Your task to perform on an android device: View the shopping cart on amazon. Add razer blade to the cart on amazon Image 0: 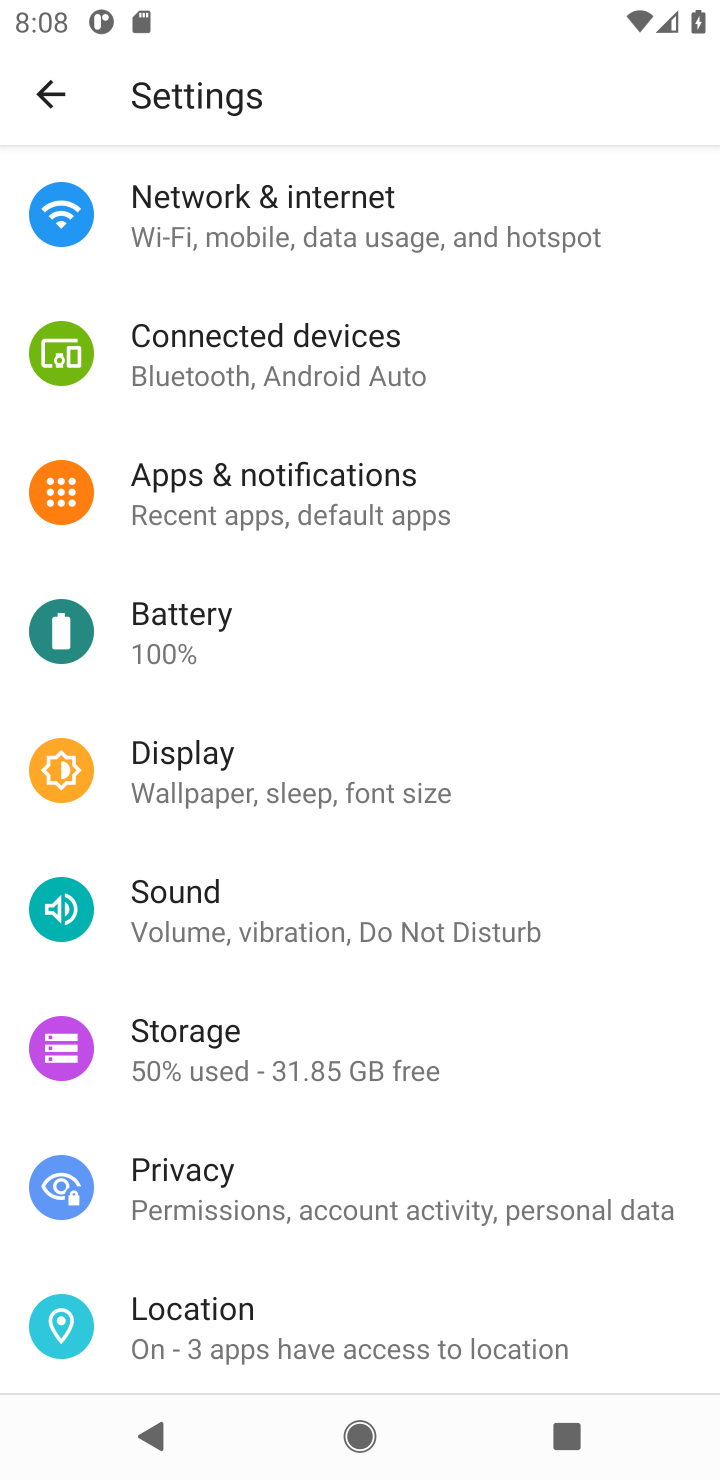
Step 0: press home button
Your task to perform on an android device: View the shopping cart on amazon. Add razer blade to the cart on amazon Image 1: 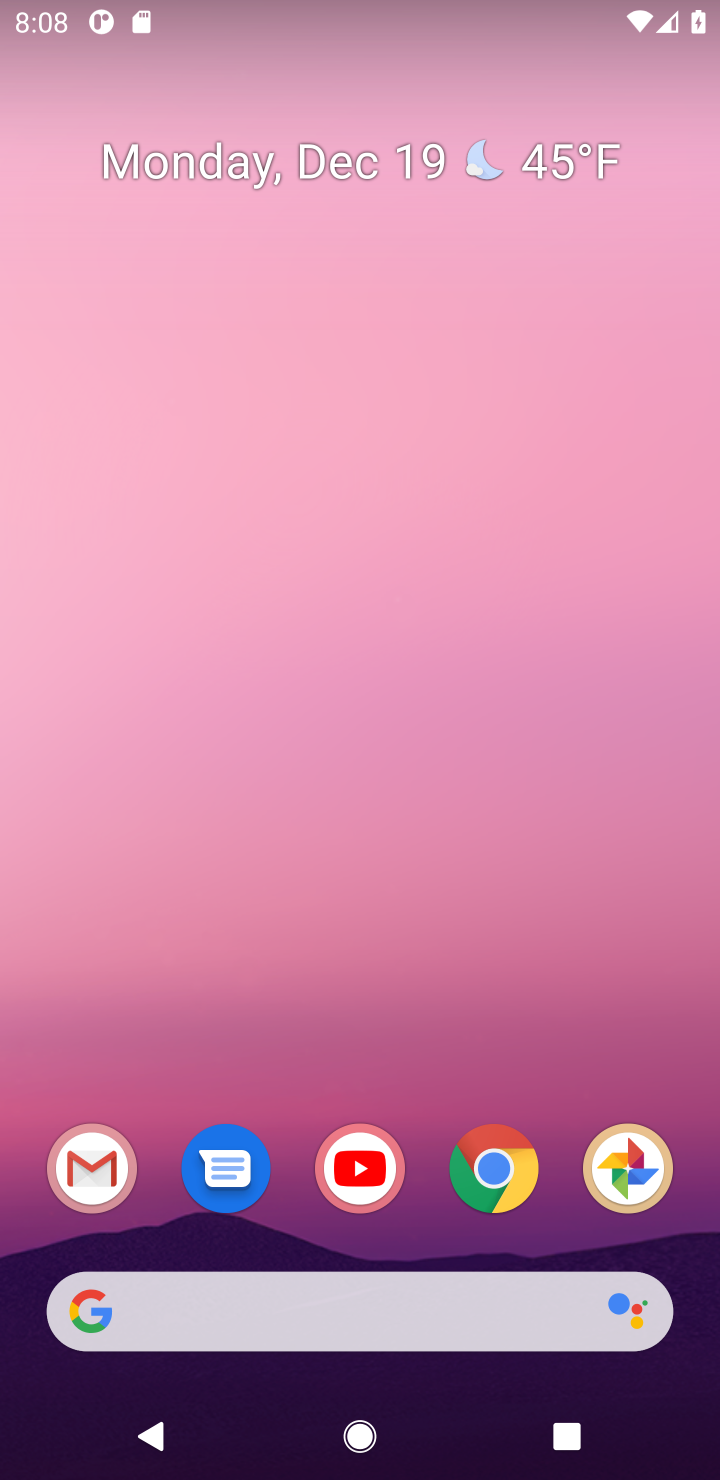
Step 1: click (505, 1175)
Your task to perform on an android device: View the shopping cart on amazon. Add razer blade to the cart on amazon Image 2: 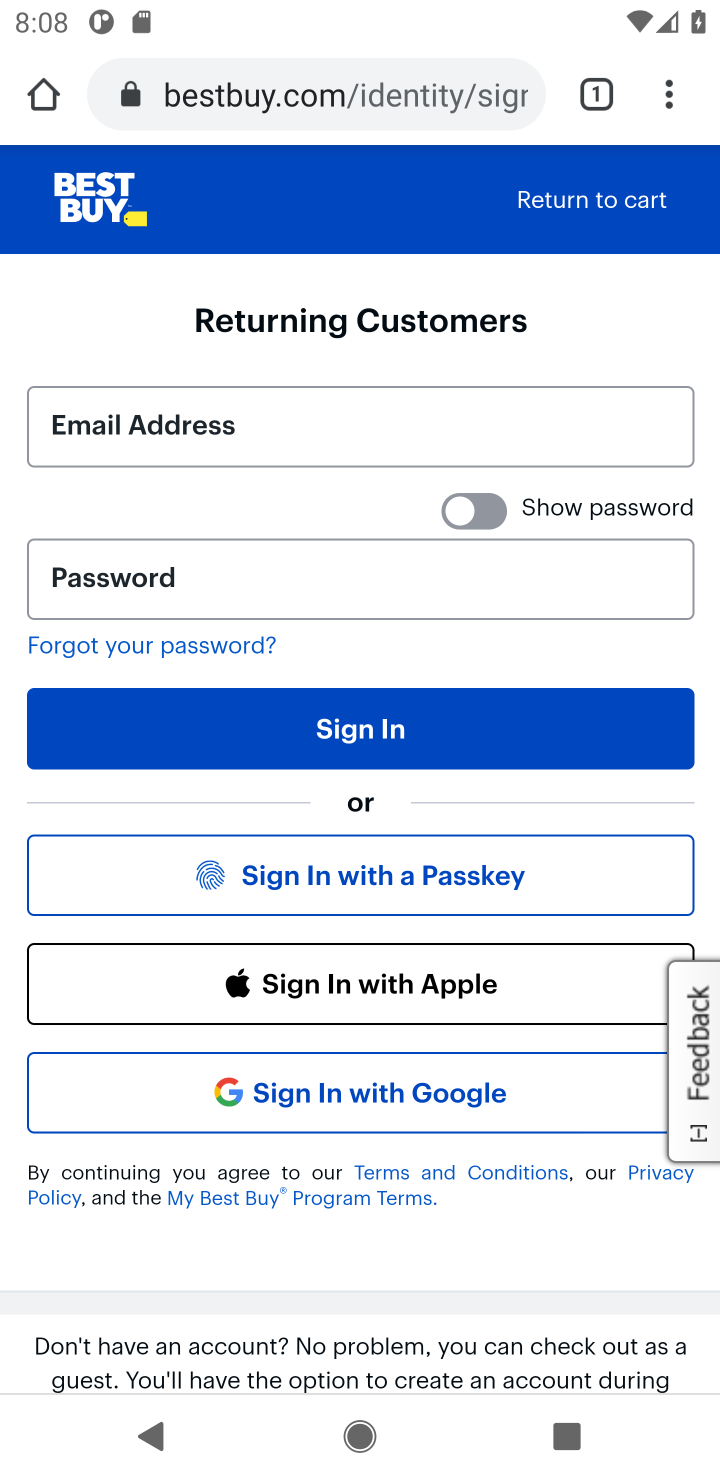
Step 2: click (249, 91)
Your task to perform on an android device: View the shopping cart on amazon. Add razer blade to the cart on amazon Image 3: 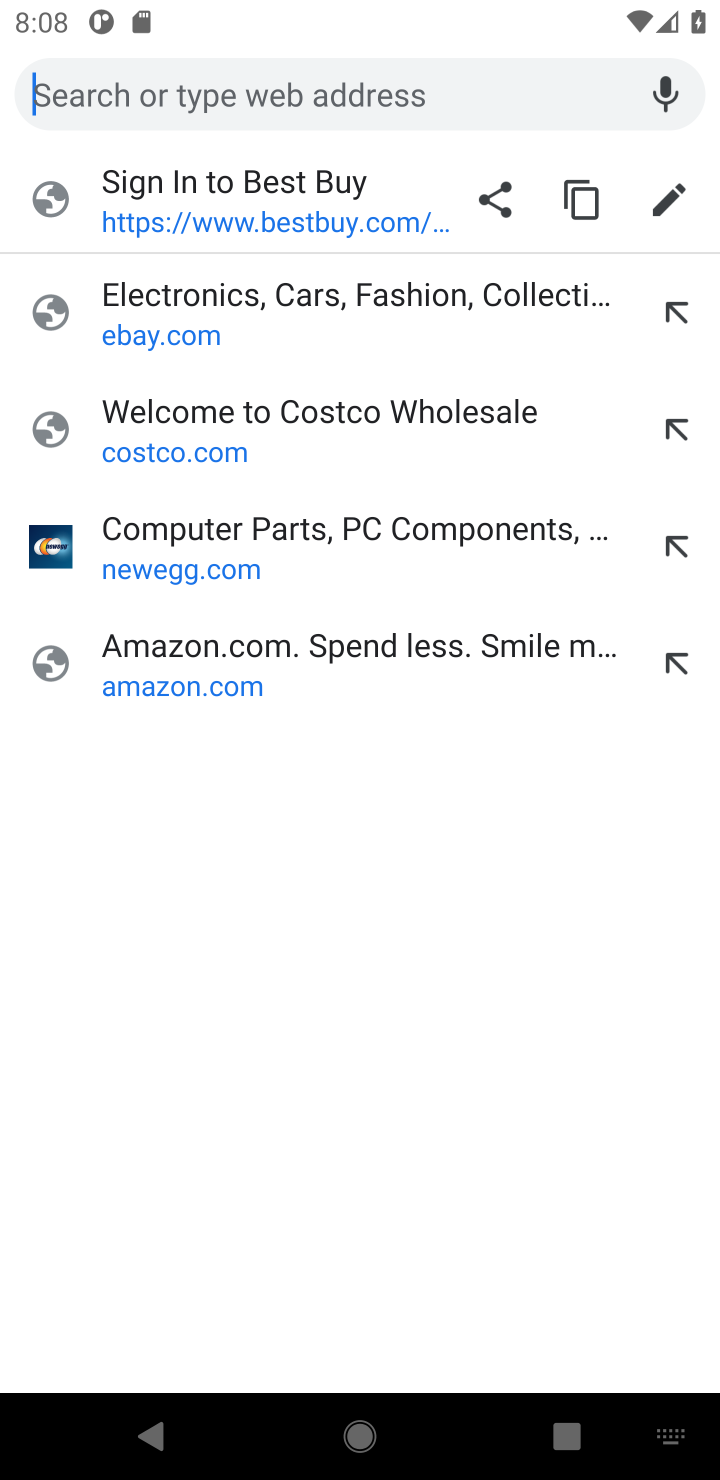
Step 3: click (179, 681)
Your task to perform on an android device: View the shopping cart on amazon. Add razer blade to the cart on amazon Image 4: 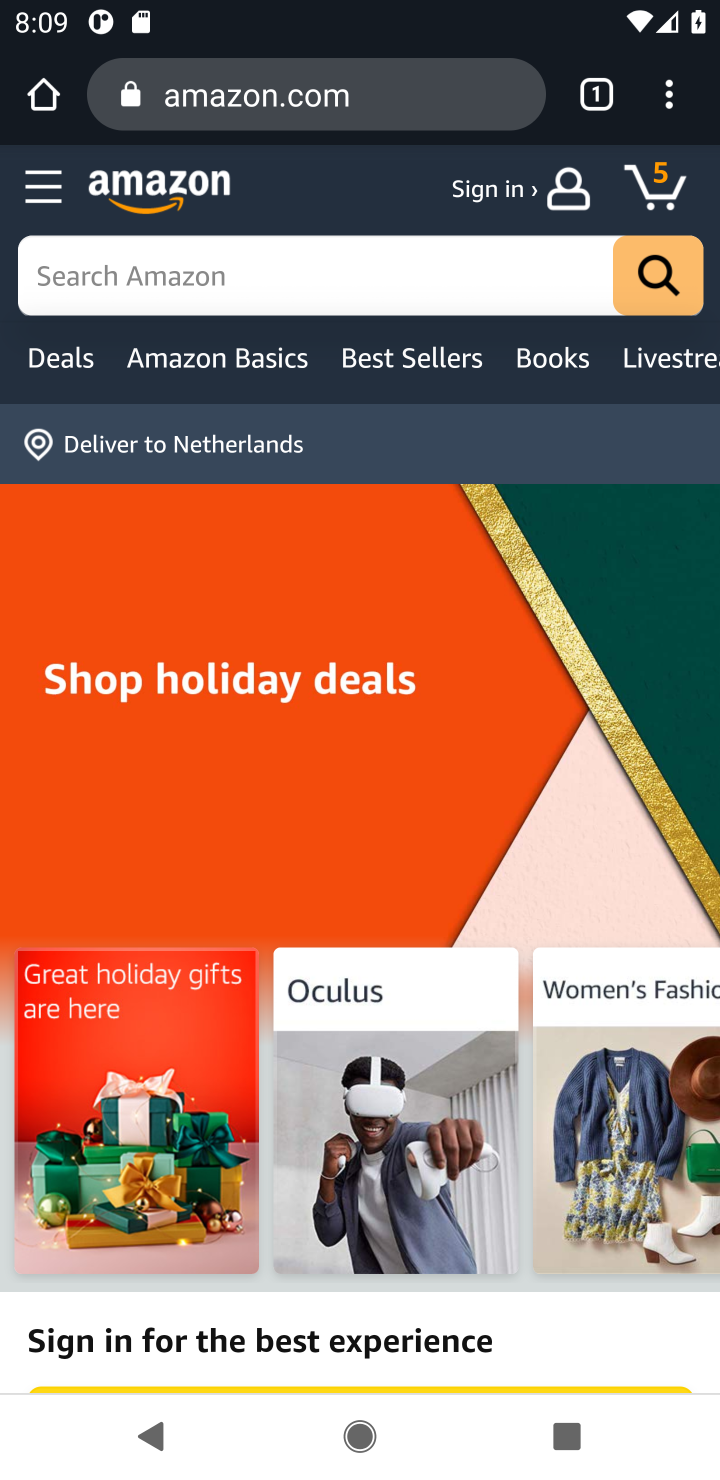
Step 4: click (668, 192)
Your task to perform on an android device: View the shopping cart on amazon. Add razer blade to the cart on amazon Image 5: 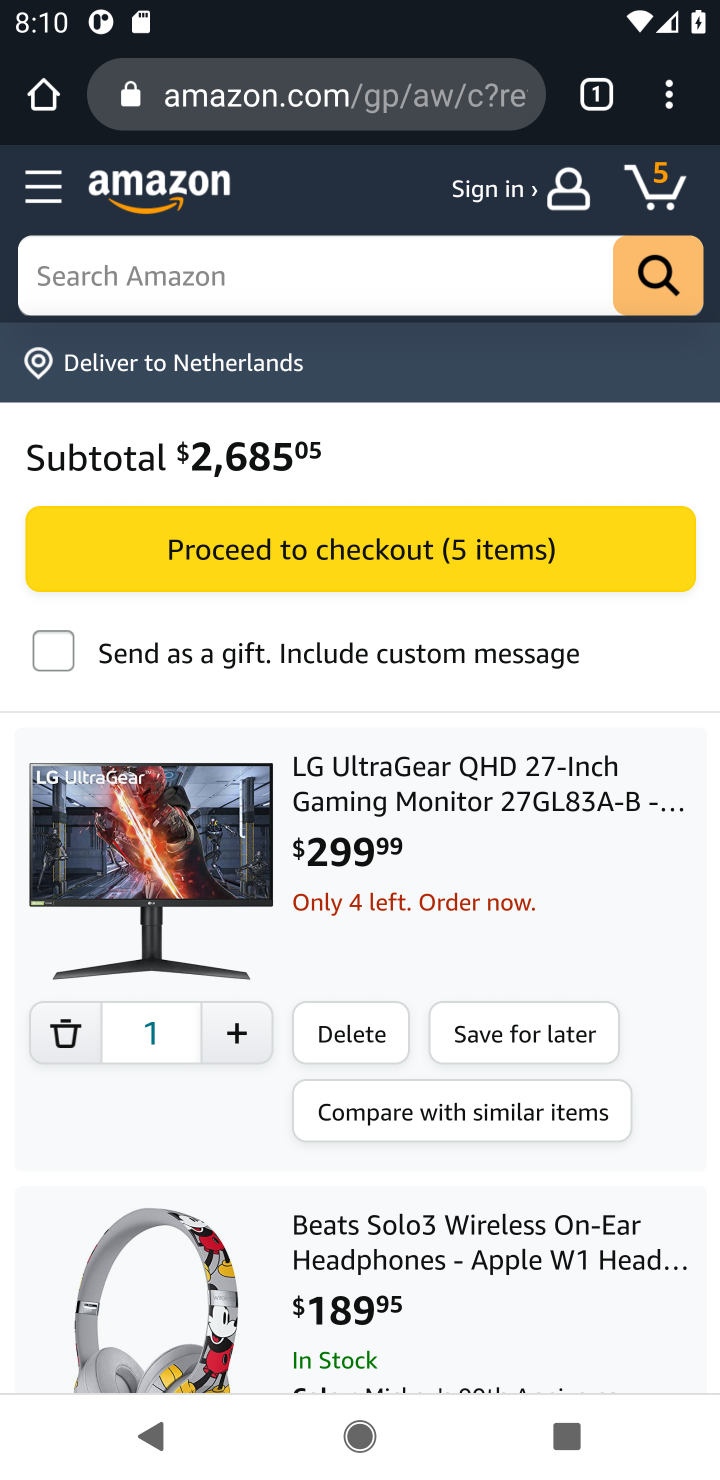
Step 5: click (153, 266)
Your task to perform on an android device: View the shopping cart on amazon. Add razer blade to the cart on amazon Image 6: 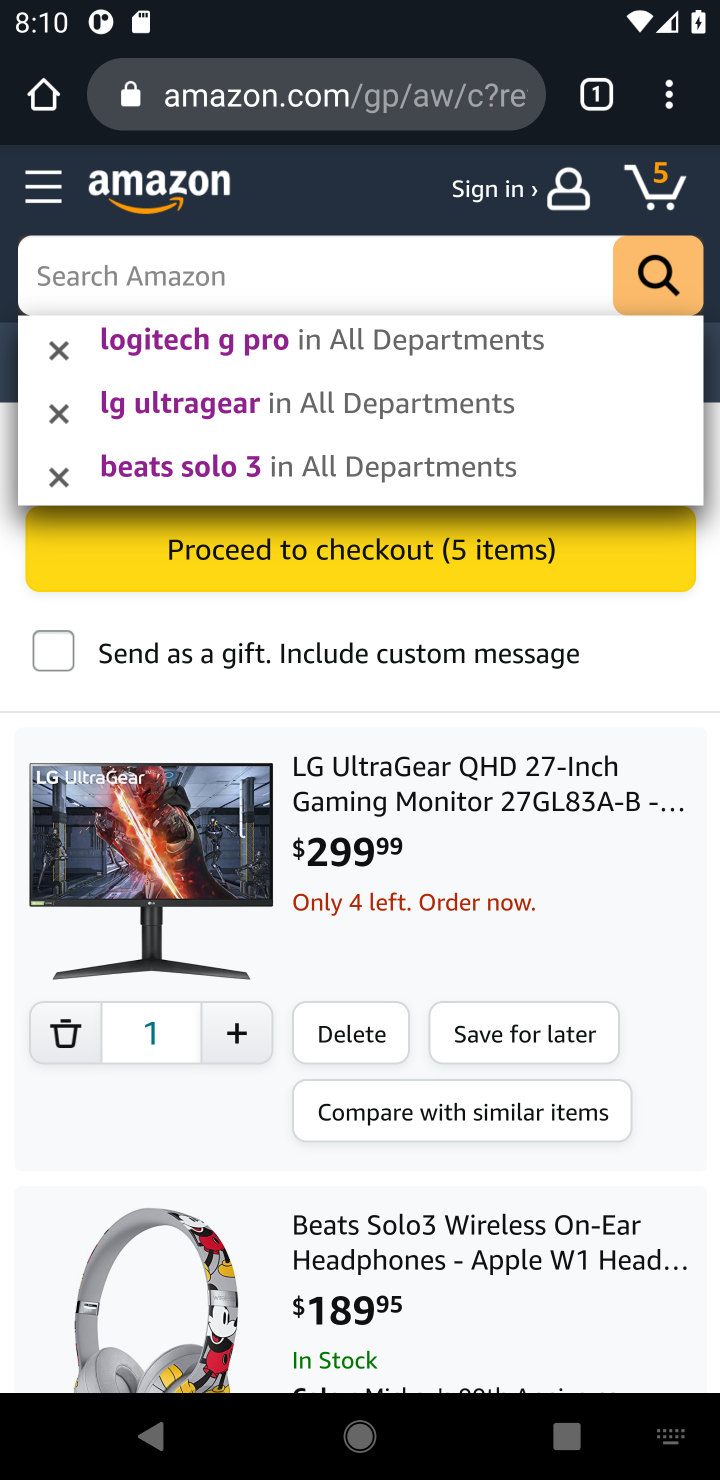
Step 6: type "razer blade"
Your task to perform on an android device: View the shopping cart on amazon. Add razer blade to the cart on amazon Image 7: 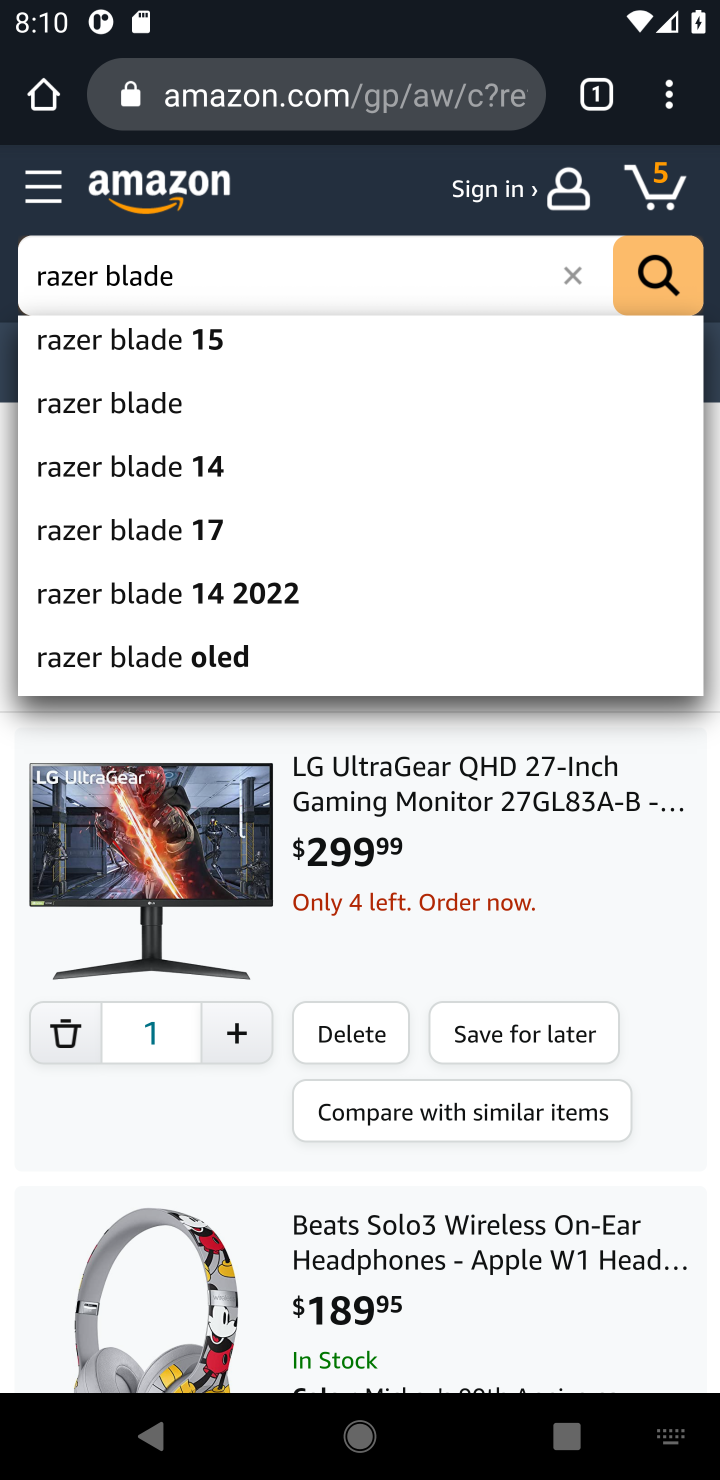
Step 7: click (92, 409)
Your task to perform on an android device: View the shopping cart on amazon. Add razer blade to the cart on amazon Image 8: 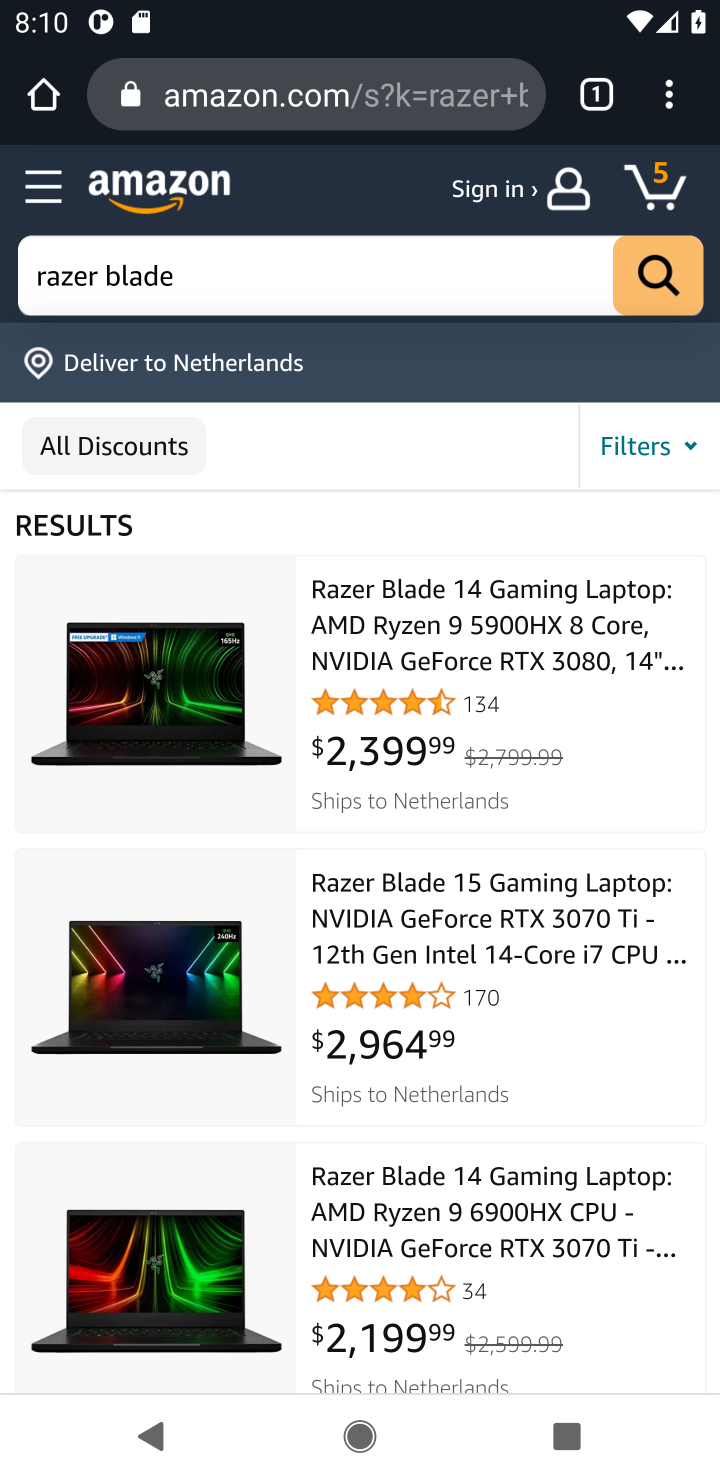
Step 8: click (428, 635)
Your task to perform on an android device: View the shopping cart on amazon. Add razer blade to the cart on amazon Image 9: 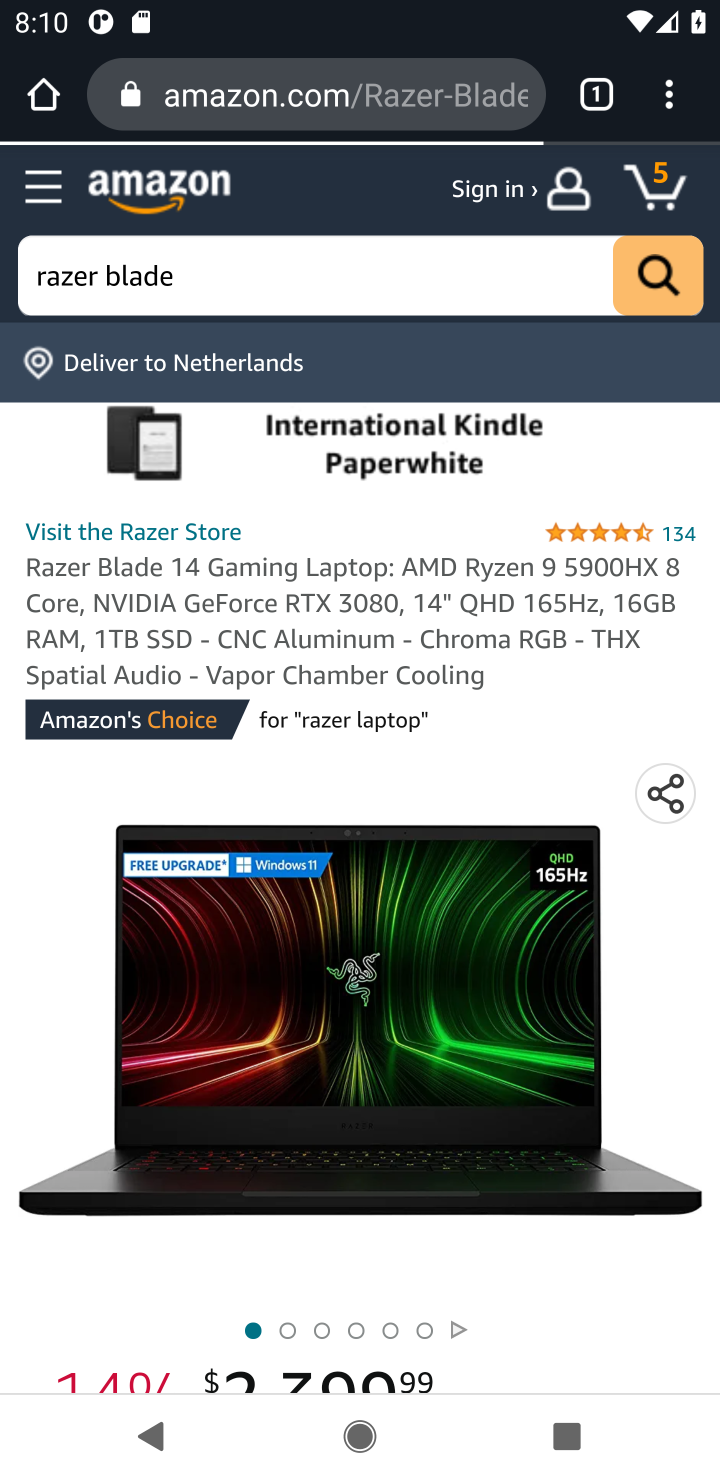
Step 9: drag from (355, 900) to (365, 277)
Your task to perform on an android device: View the shopping cart on amazon. Add razer blade to the cart on amazon Image 10: 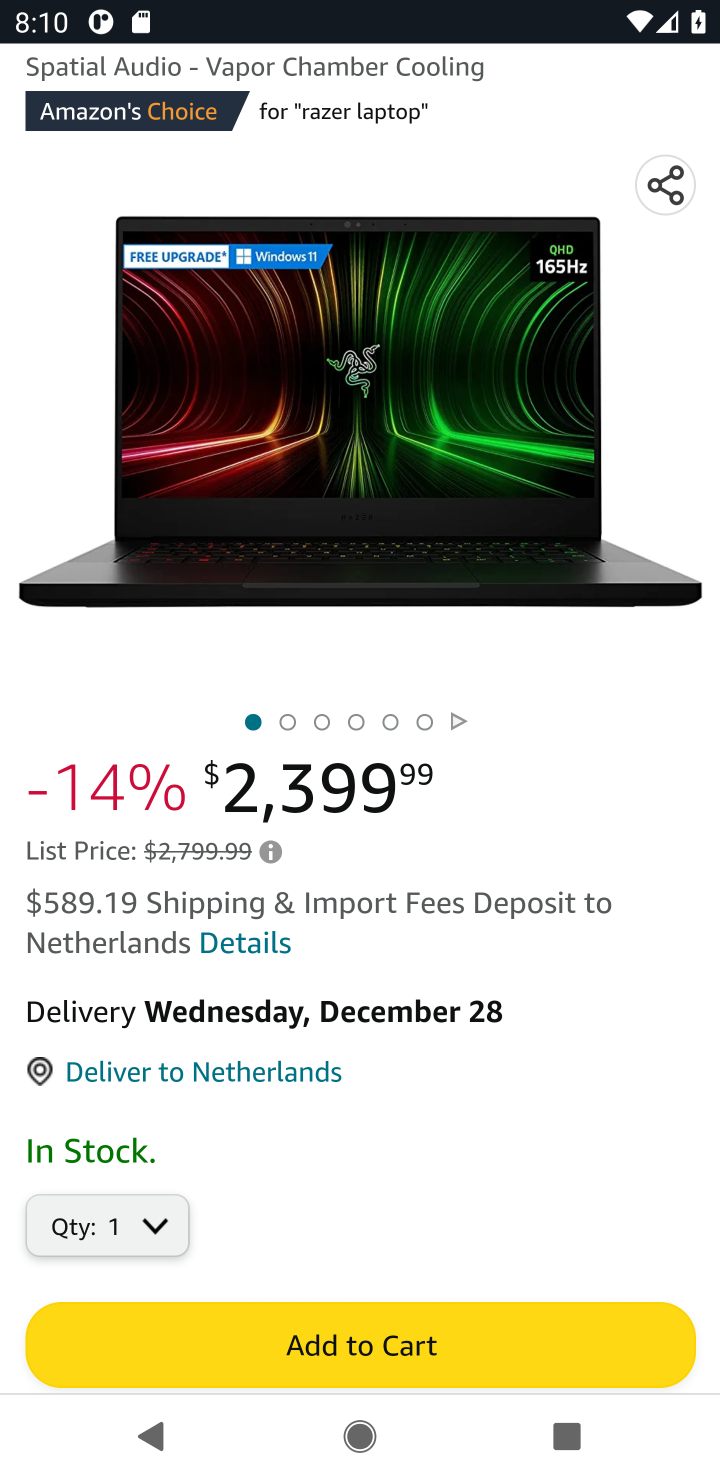
Step 10: drag from (290, 939) to (306, 517)
Your task to perform on an android device: View the shopping cart on amazon. Add razer blade to the cart on amazon Image 11: 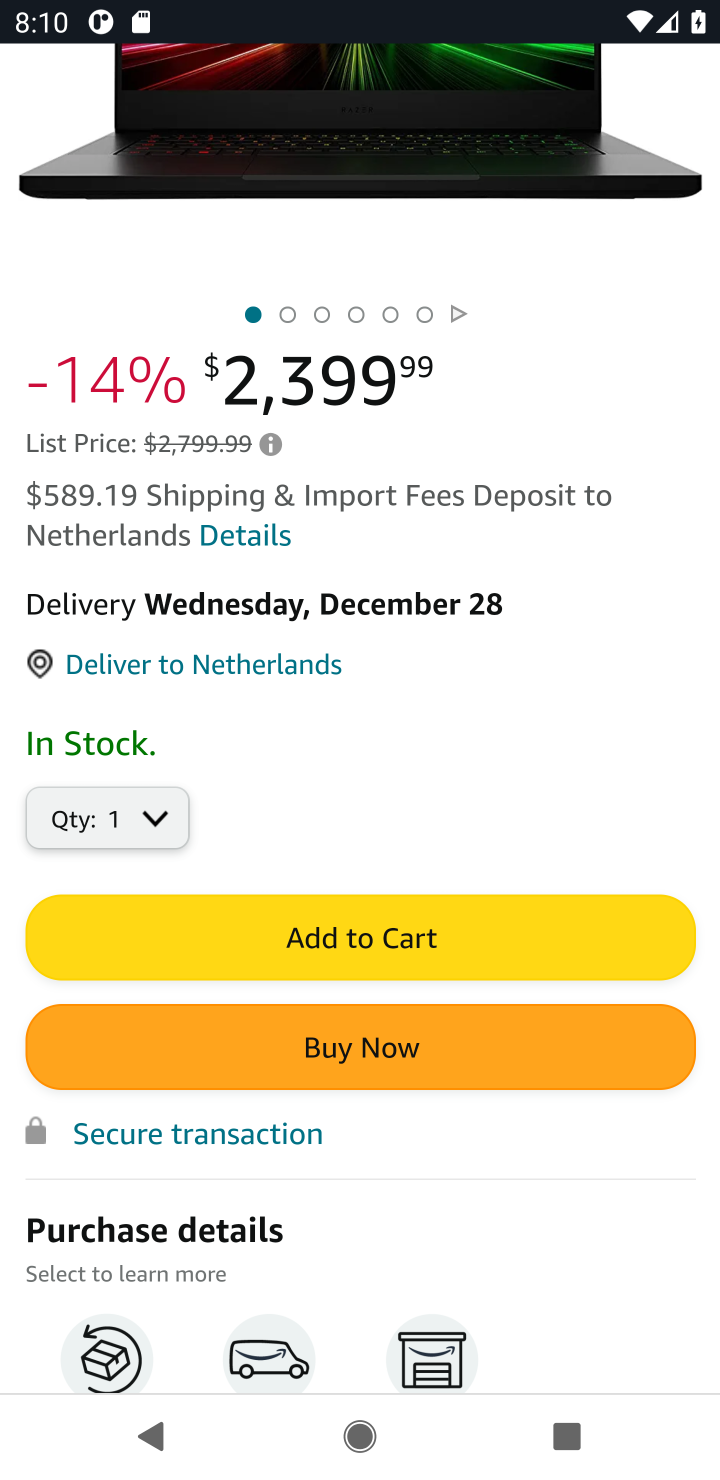
Step 11: click (298, 934)
Your task to perform on an android device: View the shopping cart on amazon. Add razer blade to the cart on amazon Image 12: 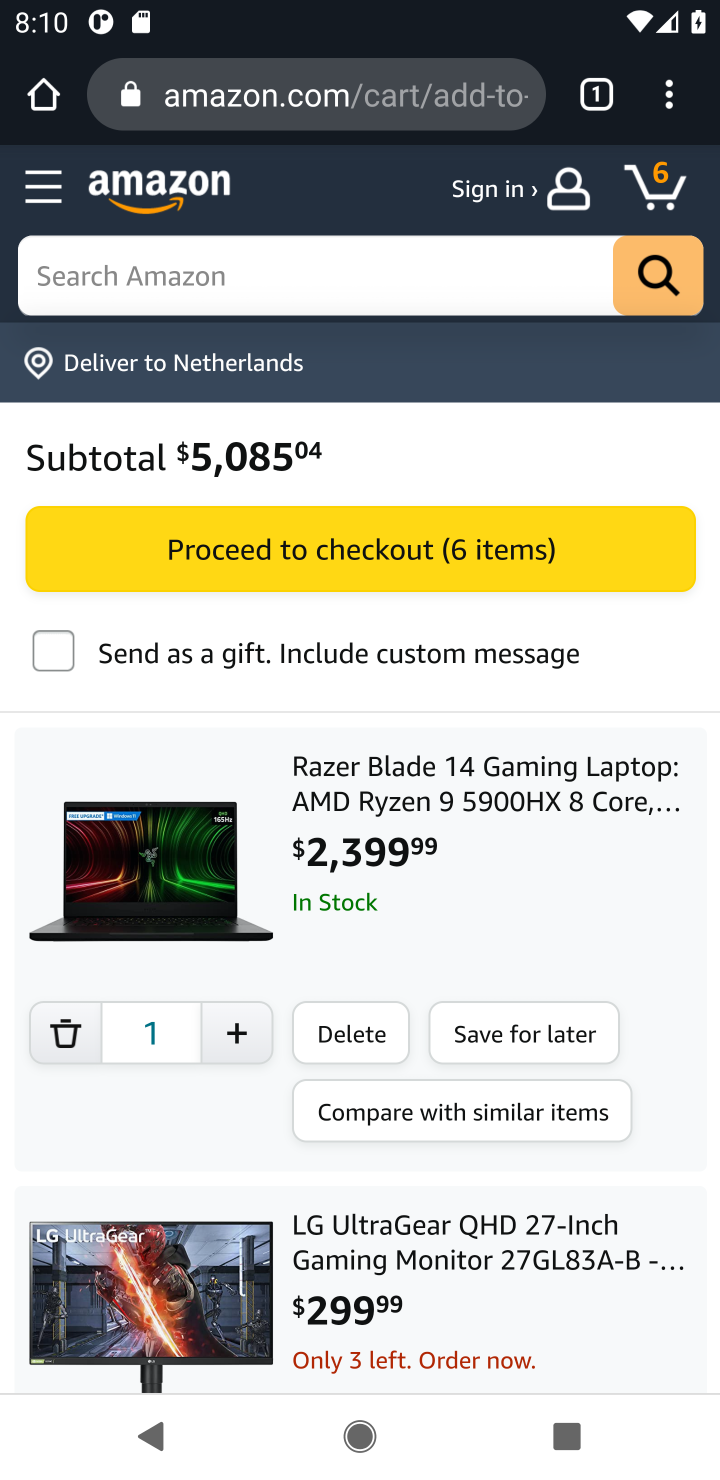
Step 12: task complete